Your task to perform on an android device: set the stopwatch Image 0: 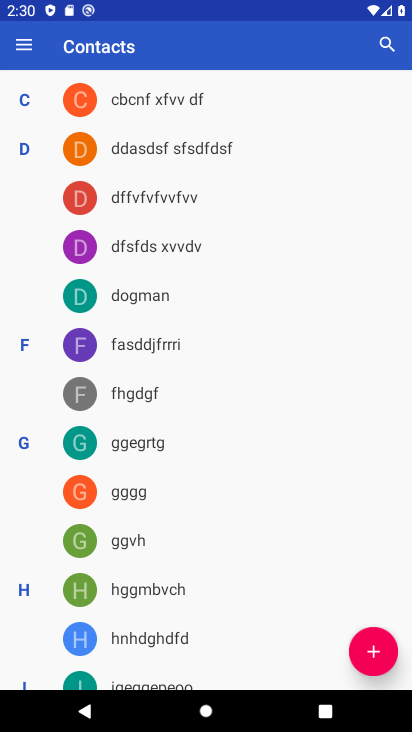
Step 0: press home button
Your task to perform on an android device: set the stopwatch Image 1: 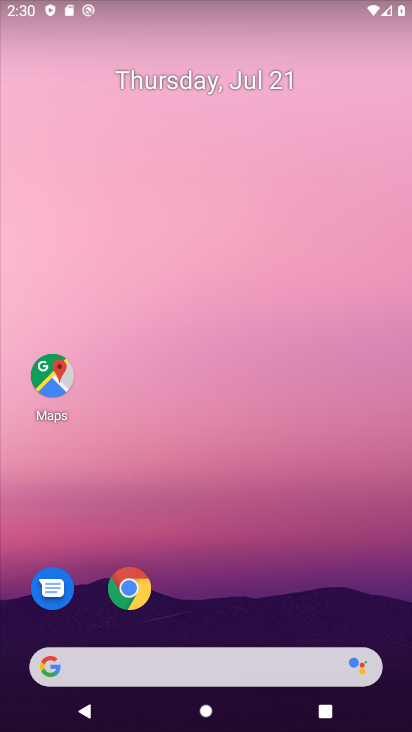
Step 1: drag from (281, 567) to (231, 193)
Your task to perform on an android device: set the stopwatch Image 2: 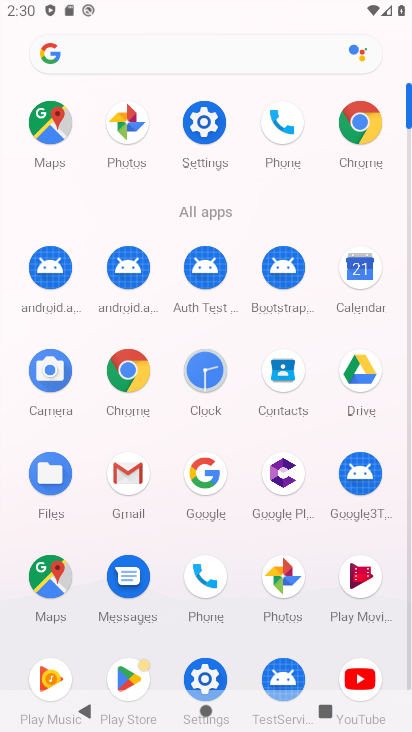
Step 2: click (203, 376)
Your task to perform on an android device: set the stopwatch Image 3: 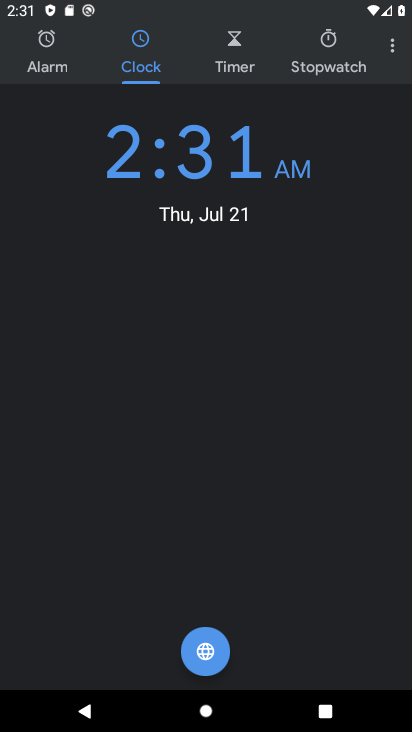
Step 3: click (333, 48)
Your task to perform on an android device: set the stopwatch Image 4: 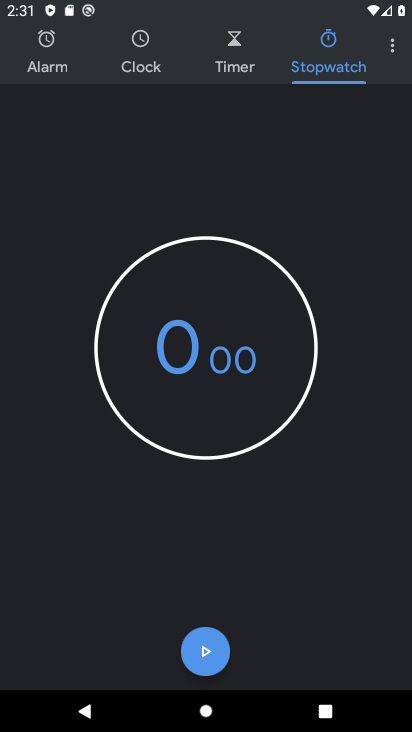
Step 4: task complete